Your task to perform on an android device: turn off wifi Image 0: 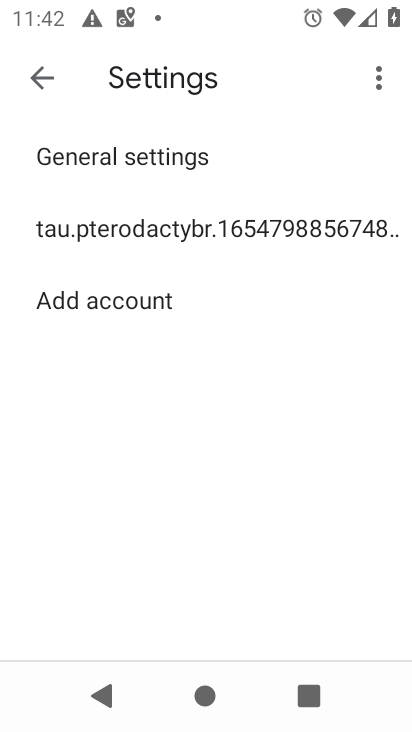
Step 0: press back button
Your task to perform on an android device: turn off wifi Image 1: 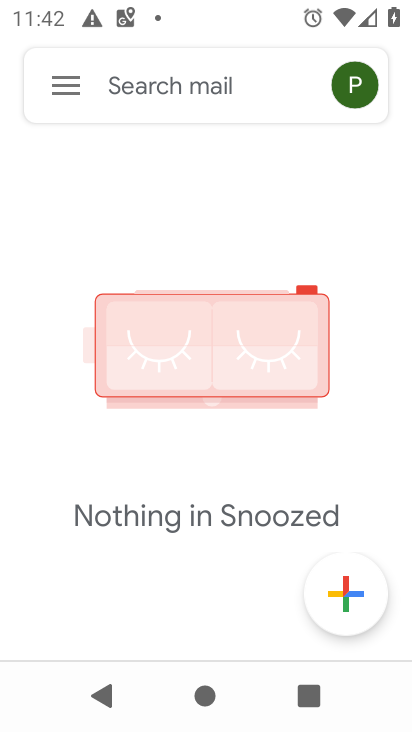
Step 1: press back button
Your task to perform on an android device: turn off wifi Image 2: 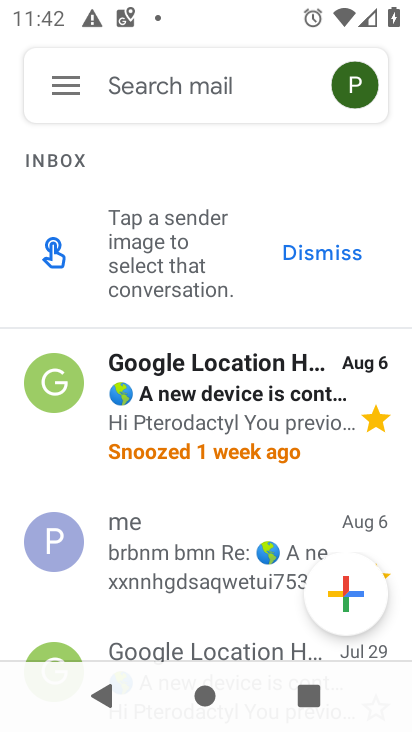
Step 2: drag from (208, 137) to (197, 500)
Your task to perform on an android device: turn off wifi Image 3: 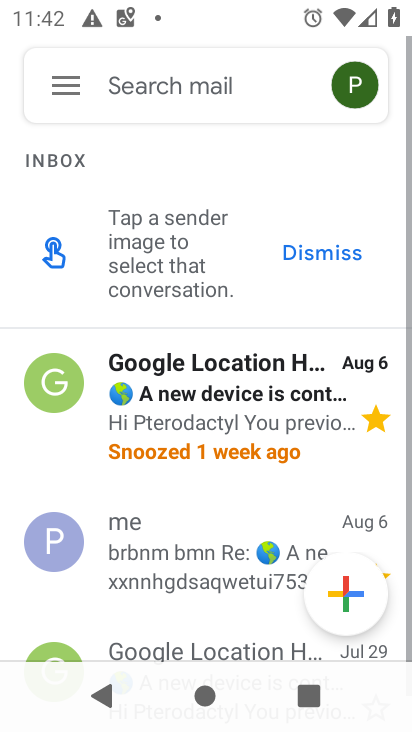
Step 3: press back button
Your task to perform on an android device: turn off wifi Image 4: 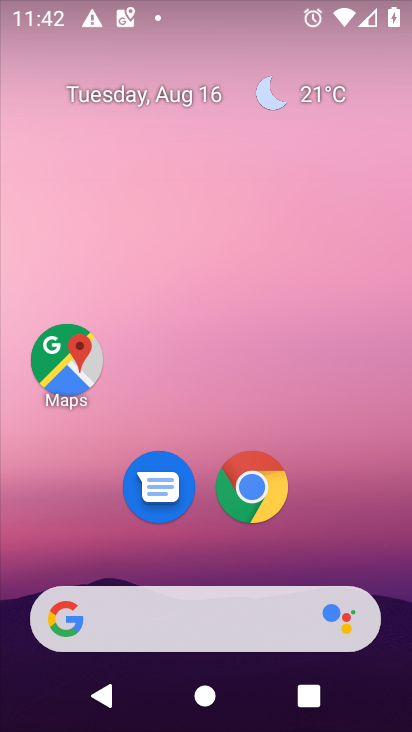
Step 4: drag from (294, 6) to (263, 503)
Your task to perform on an android device: turn off wifi Image 5: 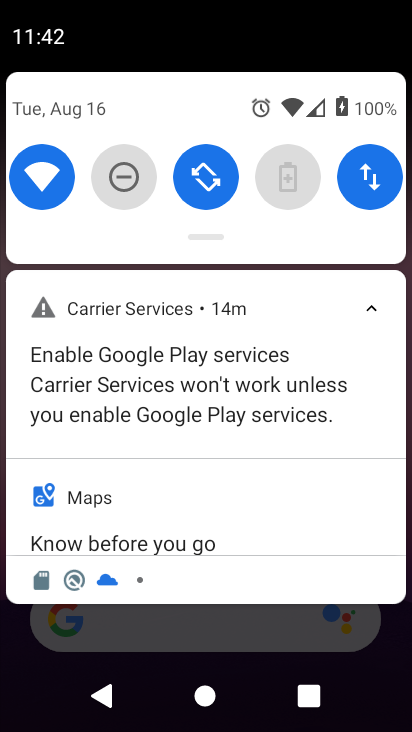
Step 5: click (44, 174)
Your task to perform on an android device: turn off wifi Image 6: 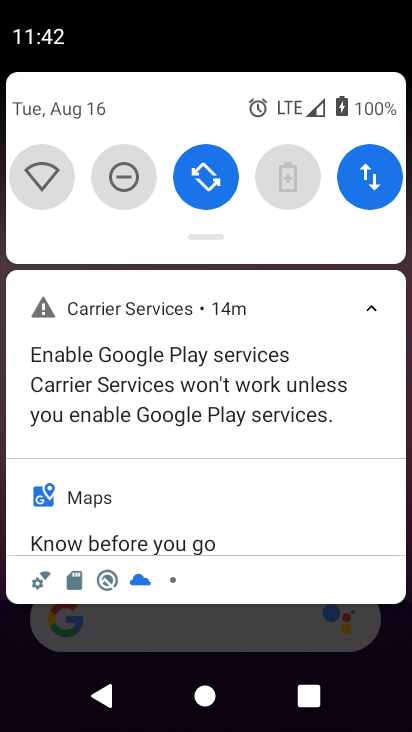
Step 6: task complete